Your task to perform on an android device: turn off airplane mode Image 0: 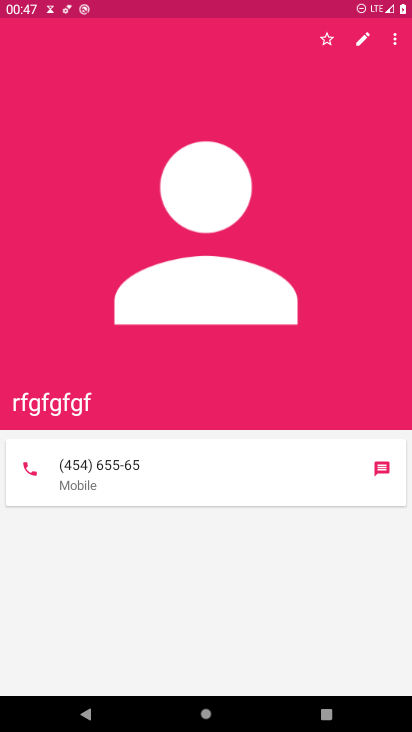
Step 0: press home button
Your task to perform on an android device: turn off airplane mode Image 1: 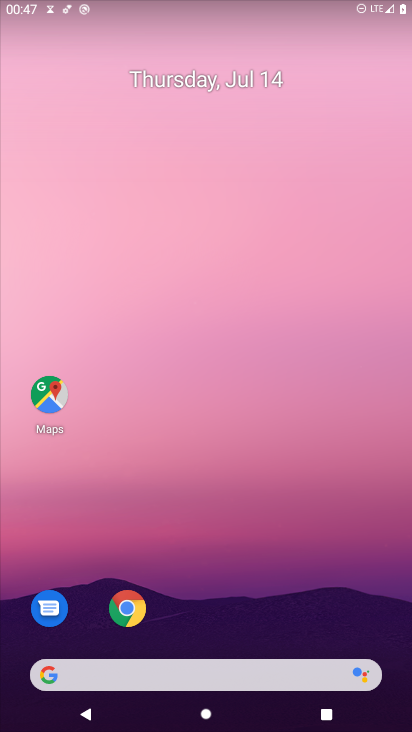
Step 1: task complete